Your task to perform on an android device: Open the web browser Image 0: 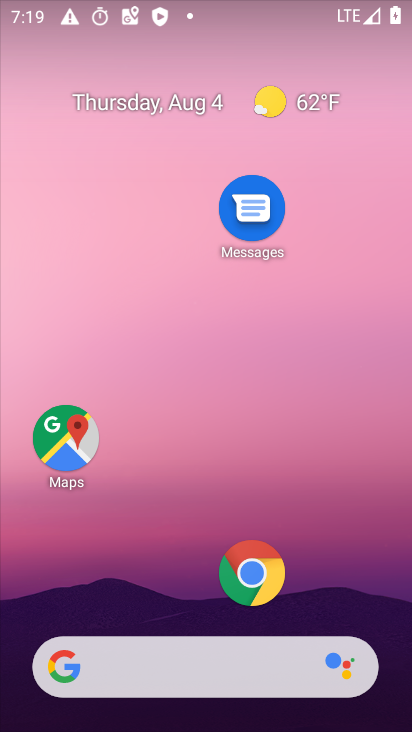
Step 0: press home button
Your task to perform on an android device: Open the web browser Image 1: 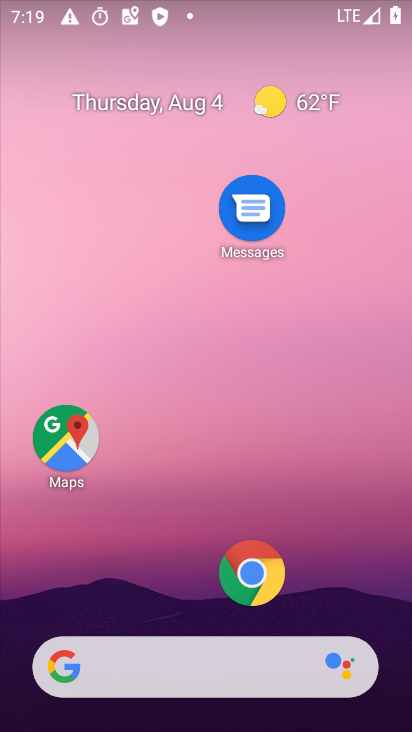
Step 1: click (67, 664)
Your task to perform on an android device: Open the web browser Image 2: 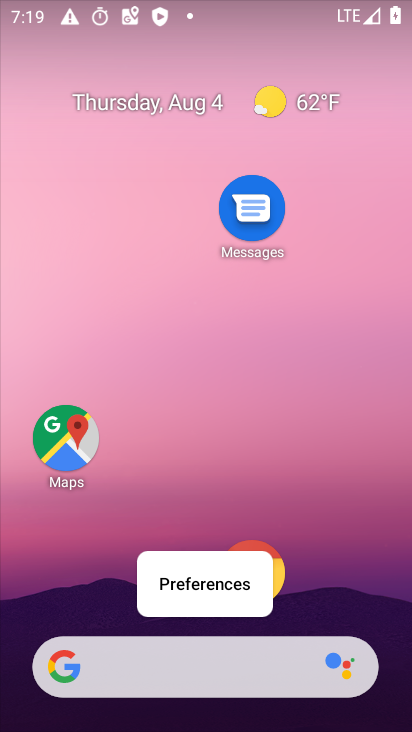
Step 2: click (54, 679)
Your task to perform on an android device: Open the web browser Image 3: 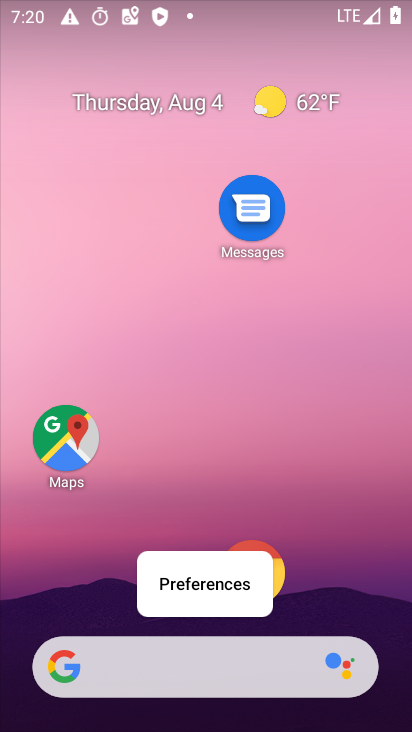
Step 3: click (56, 672)
Your task to perform on an android device: Open the web browser Image 4: 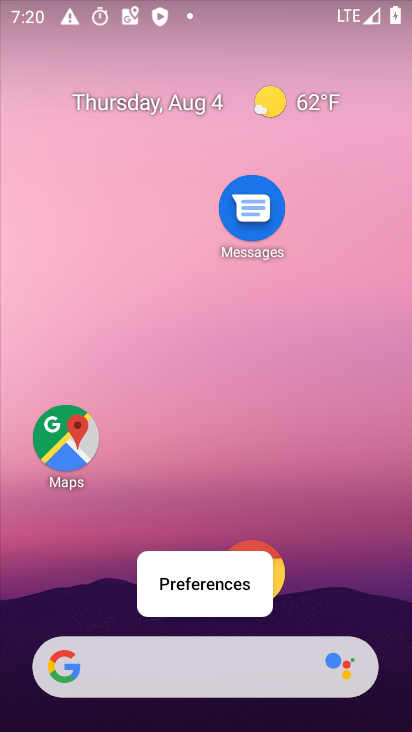
Step 4: click (56, 666)
Your task to perform on an android device: Open the web browser Image 5: 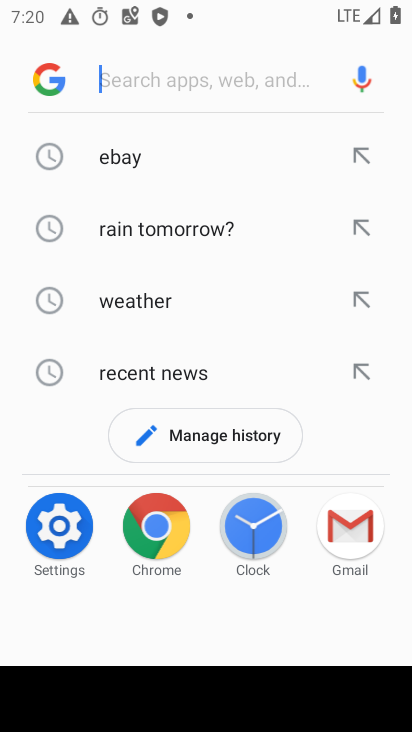
Step 5: task complete